Your task to perform on an android device: turn off priority inbox in the gmail app Image 0: 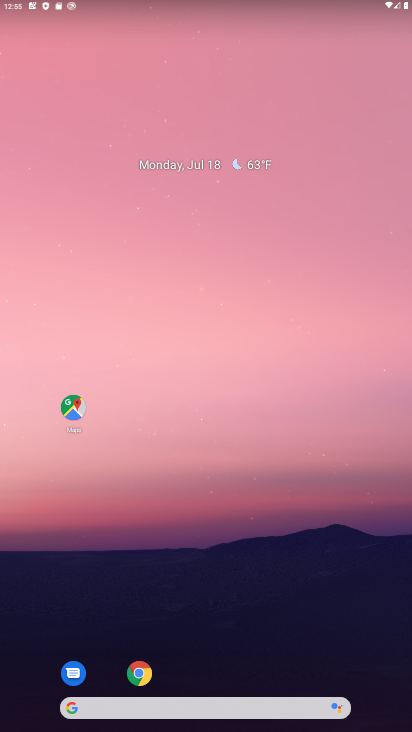
Step 0: drag from (210, 556) to (206, 455)
Your task to perform on an android device: turn off priority inbox in the gmail app Image 1: 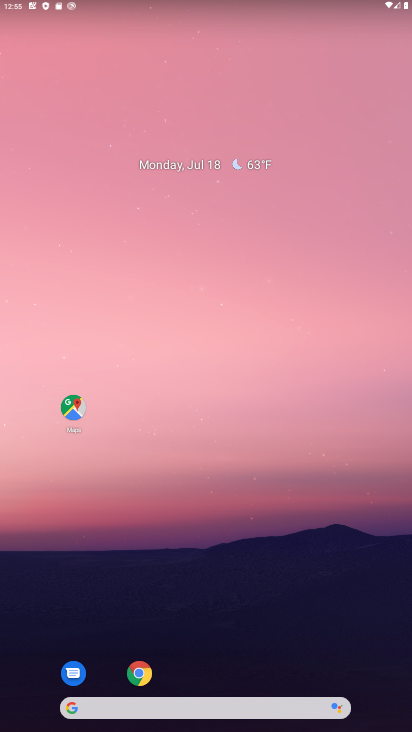
Step 1: drag from (258, 671) to (250, 244)
Your task to perform on an android device: turn off priority inbox in the gmail app Image 2: 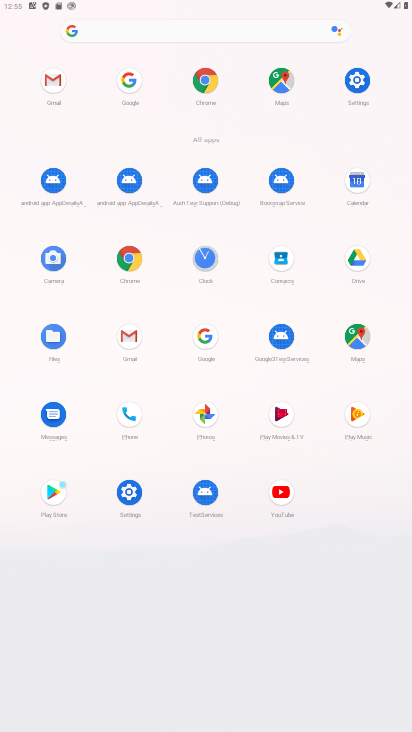
Step 2: click (54, 84)
Your task to perform on an android device: turn off priority inbox in the gmail app Image 3: 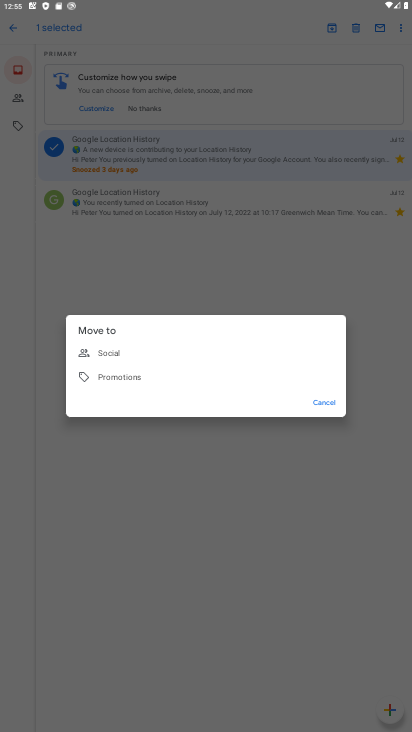
Step 3: click (185, 223)
Your task to perform on an android device: turn off priority inbox in the gmail app Image 4: 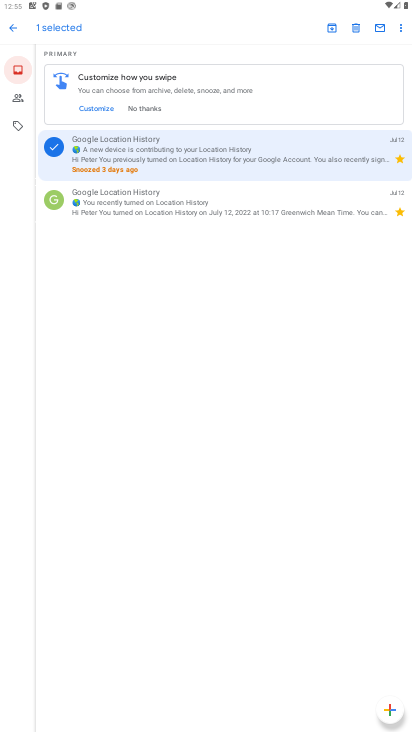
Step 4: click (17, 33)
Your task to perform on an android device: turn off priority inbox in the gmail app Image 5: 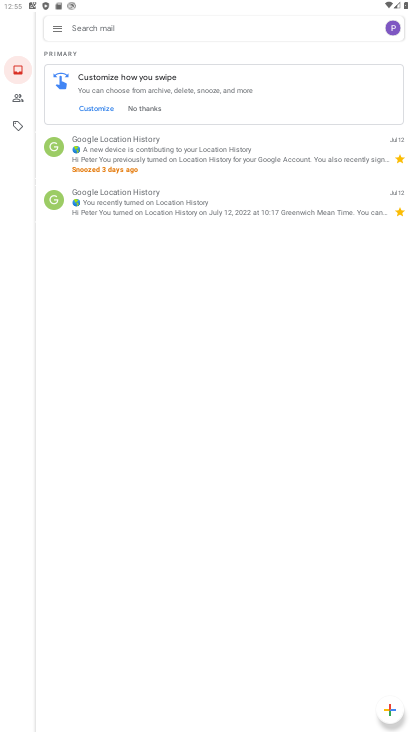
Step 5: click (55, 25)
Your task to perform on an android device: turn off priority inbox in the gmail app Image 6: 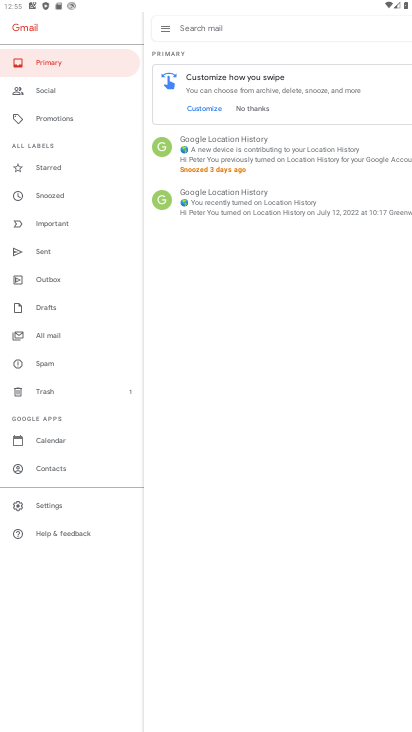
Step 6: click (62, 501)
Your task to perform on an android device: turn off priority inbox in the gmail app Image 7: 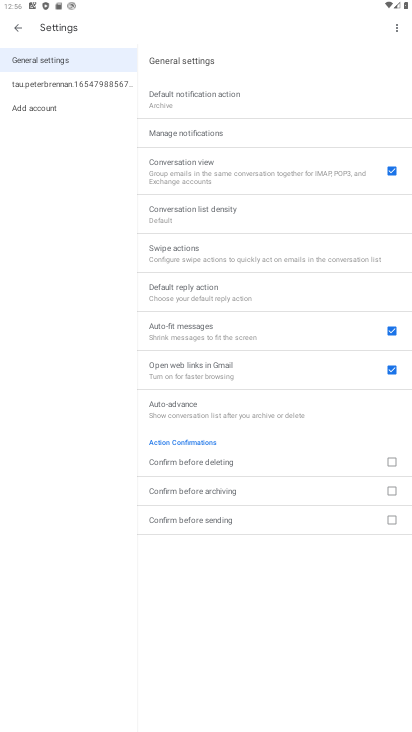
Step 7: click (49, 83)
Your task to perform on an android device: turn off priority inbox in the gmail app Image 8: 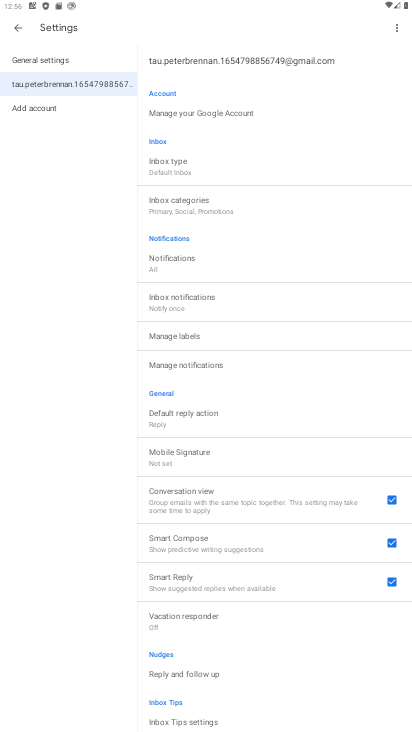
Step 8: click (213, 165)
Your task to perform on an android device: turn off priority inbox in the gmail app Image 9: 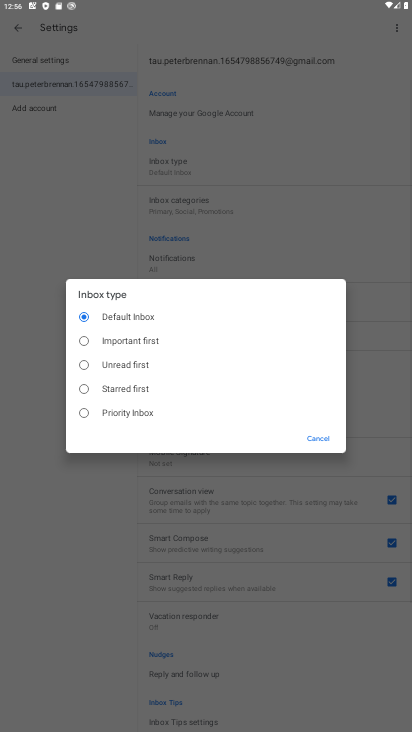
Step 9: click (123, 407)
Your task to perform on an android device: turn off priority inbox in the gmail app Image 10: 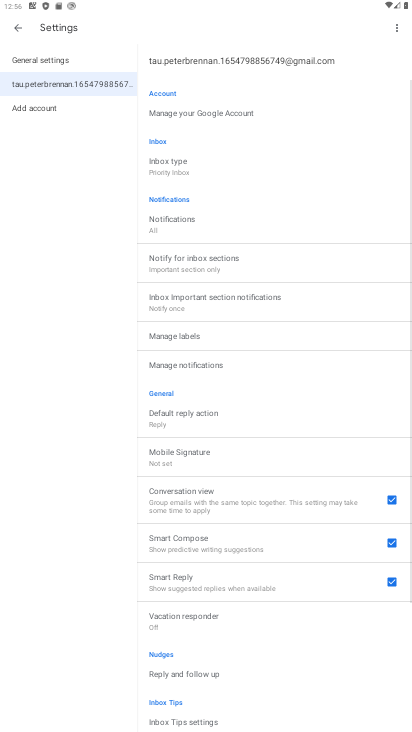
Step 10: click (170, 161)
Your task to perform on an android device: turn off priority inbox in the gmail app Image 11: 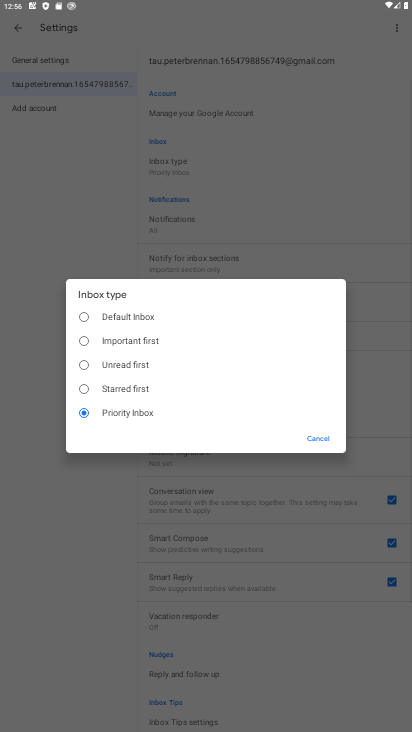
Step 11: click (119, 314)
Your task to perform on an android device: turn off priority inbox in the gmail app Image 12: 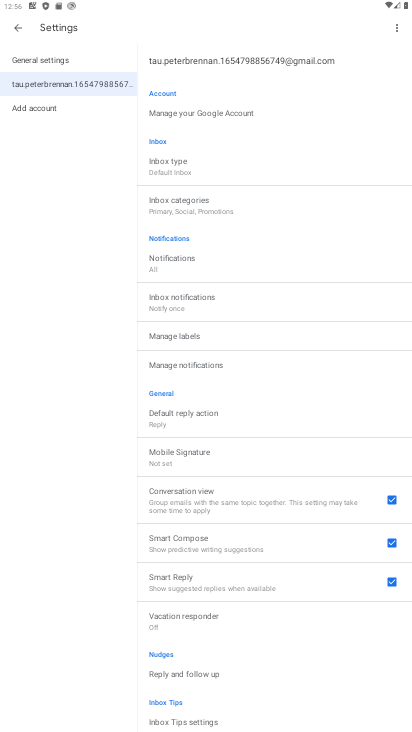
Step 12: task complete